Your task to perform on an android device: Is it going to rain today? Image 0: 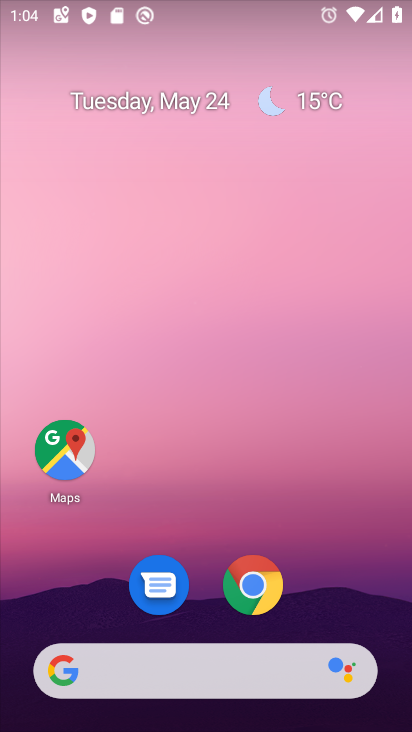
Step 0: click (210, 670)
Your task to perform on an android device: Is it going to rain today? Image 1: 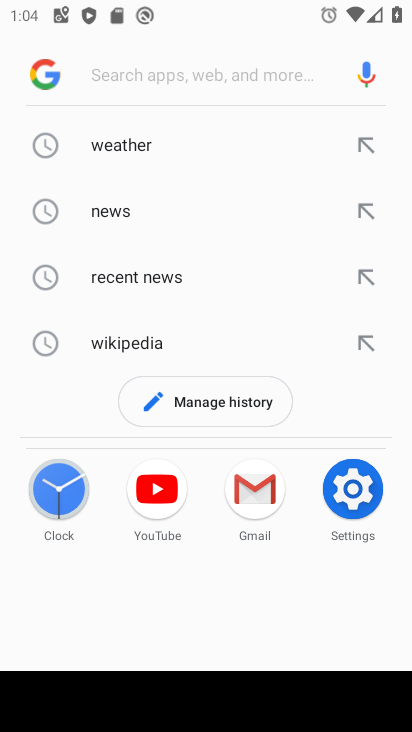
Step 1: click (130, 139)
Your task to perform on an android device: Is it going to rain today? Image 2: 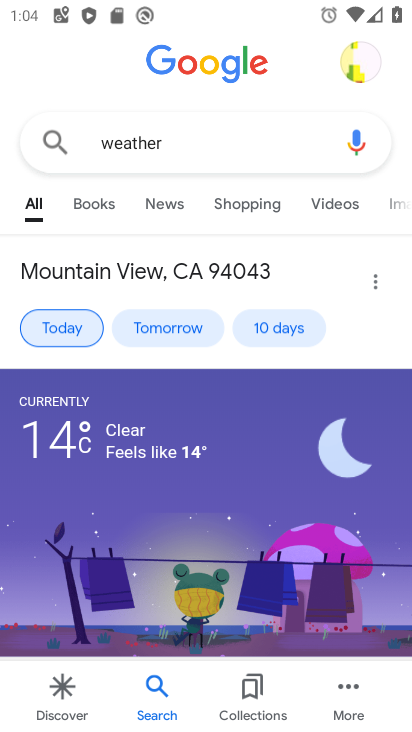
Step 2: click (88, 321)
Your task to perform on an android device: Is it going to rain today? Image 3: 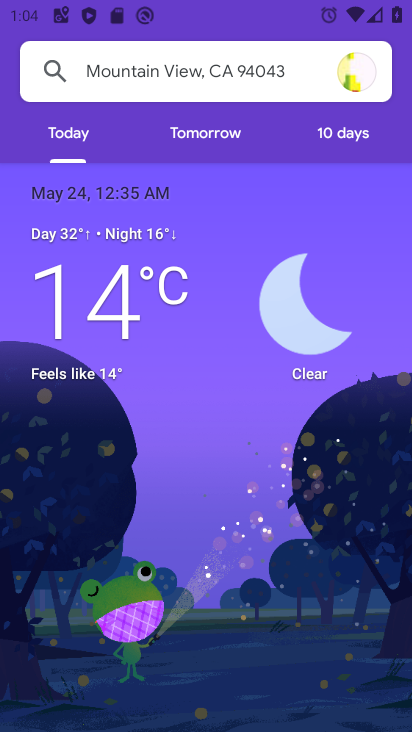
Step 3: task complete